Your task to perform on an android device: check storage Image 0: 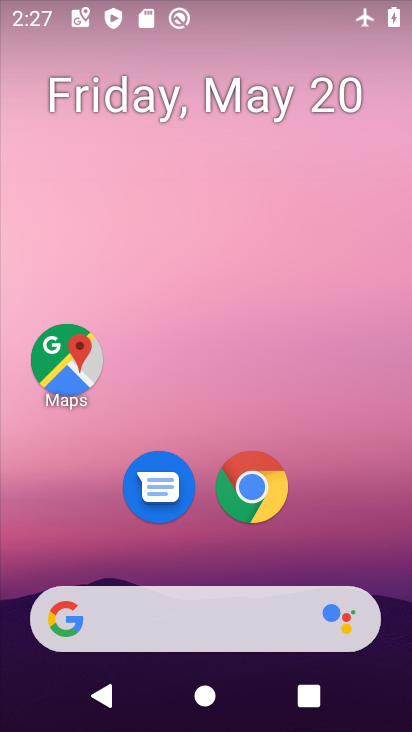
Step 0: drag from (332, 525) to (402, 44)
Your task to perform on an android device: check storage Image 1: 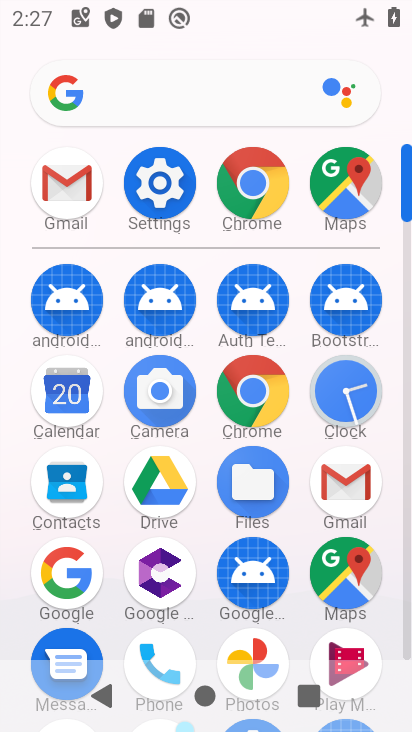
Step 1: click (148, 173)
Your task to perform on an android device: check storage Image 2: 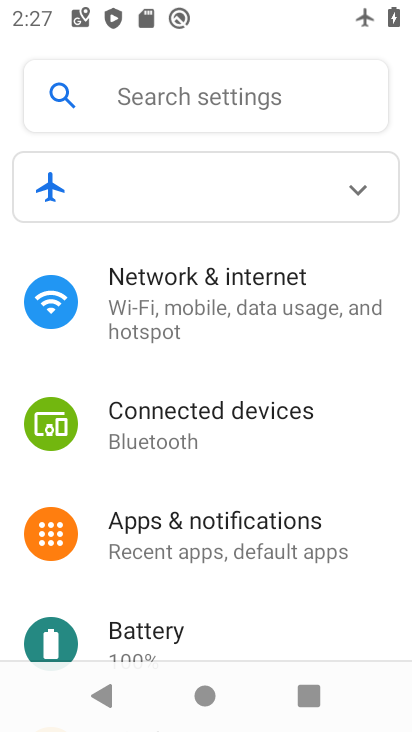
Step 2: drag from (225, 576) to (328, 218)
Your task to perform on an android device: check storage Image 3: 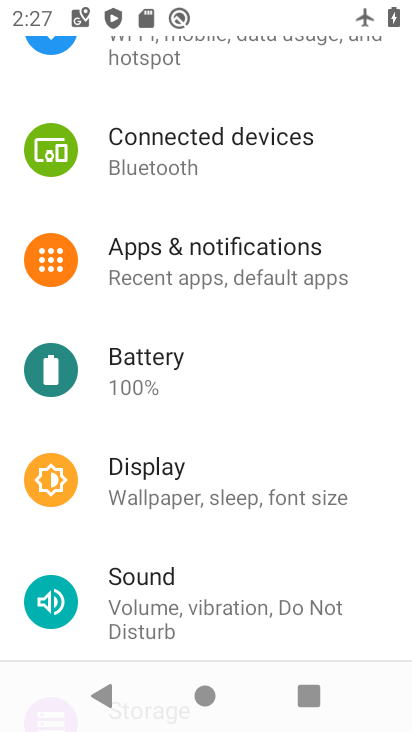
Step 3: drag from (203, 603) to (259, 289)
Your task to perform on an android device: check storage Image 4: 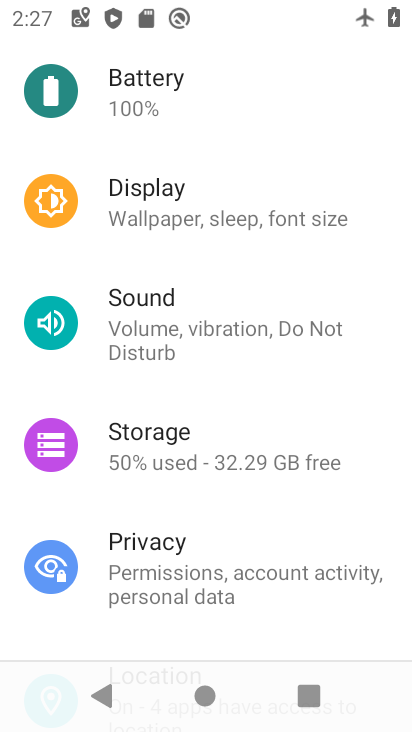
Step 4: click (201, 456)
Your task to perform on an android device: check storage Image 5: 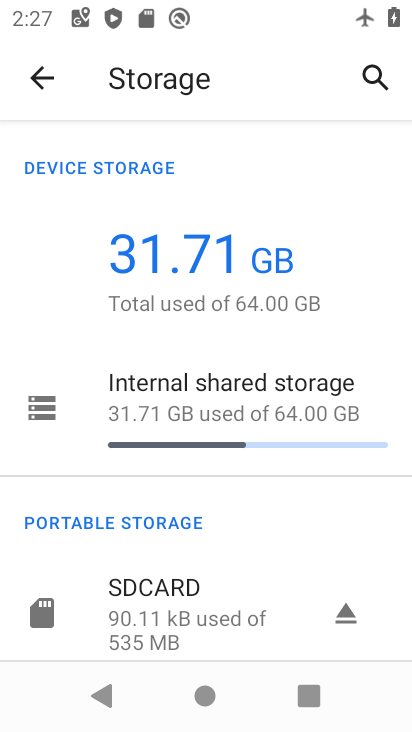
Step 5: task complete